Your task to perform on an android device: toggle translation in the chrome app Image 0: 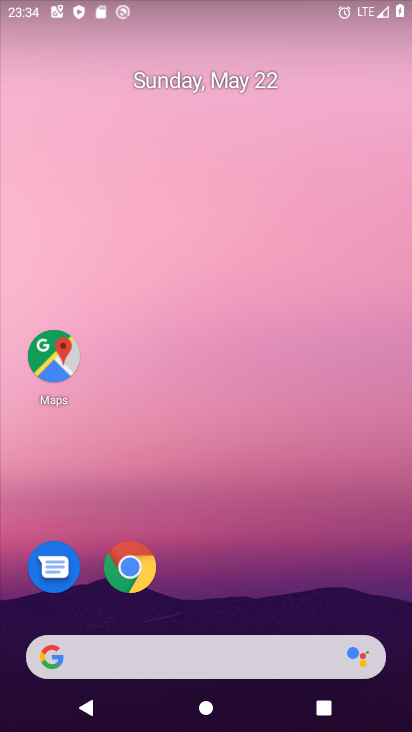
Step 0: click (258, 80)
Your task to perform on an android device: toggle translation in the chrome app Image 1: 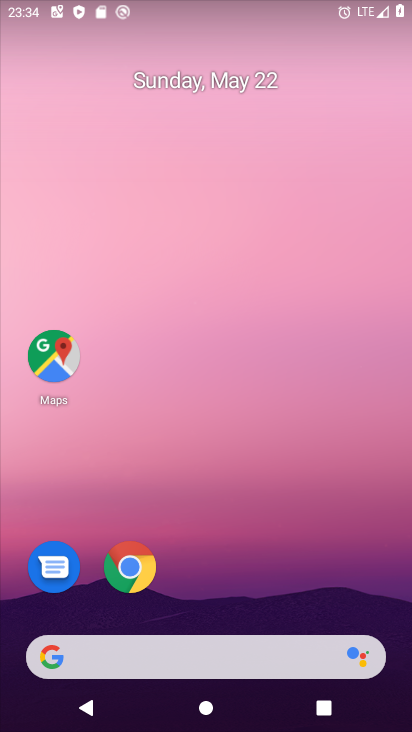
Step 1: drag from (228, 590) to (223, 23)
Your task to perform on an android device: toggle translation in the chrome app Image 2: 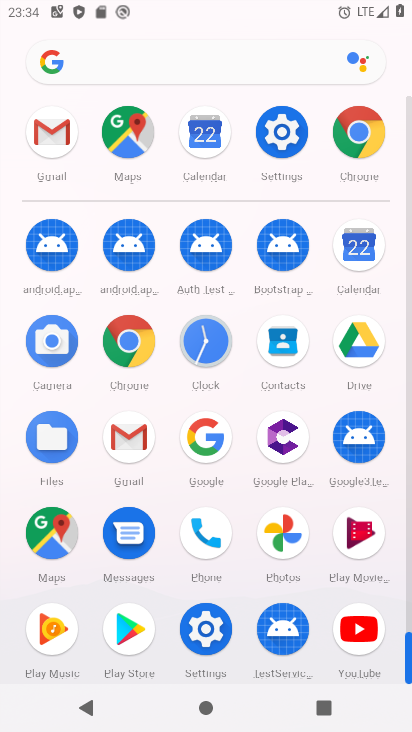
Step 2: drag from (16, 570) to (14, 285)
Your task to perform on an android device: toggle translation in the chrome app Image 3: 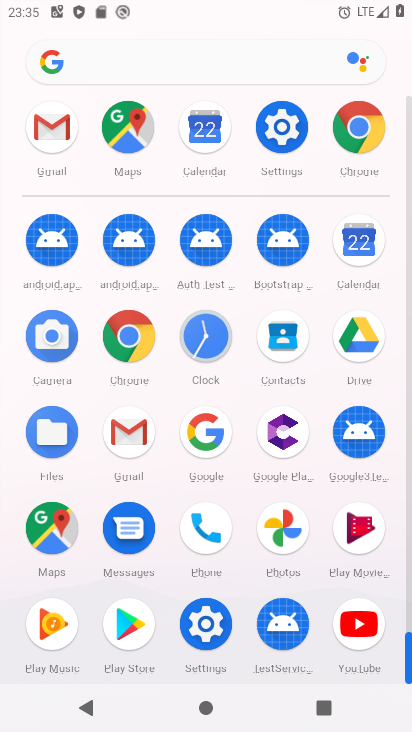
Step 3: click (124, 332)
Your task to perform on an android device: toggle translation in the chrome app Image 4: 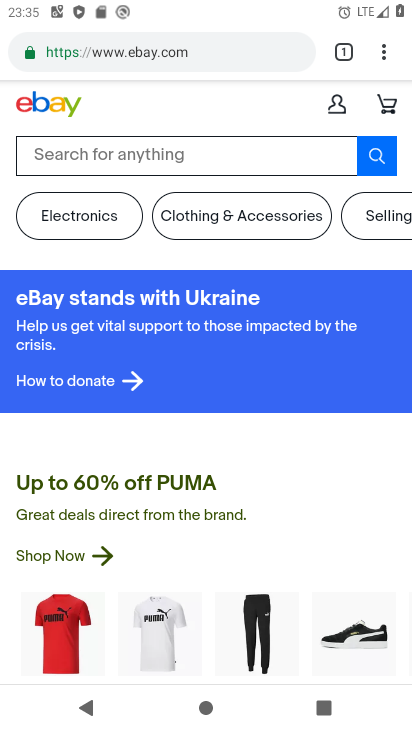
Step 4: drag from (382, 52) to (208, 622)
Your task to perform on an android device: toggle translation in the chrome app Image 5: 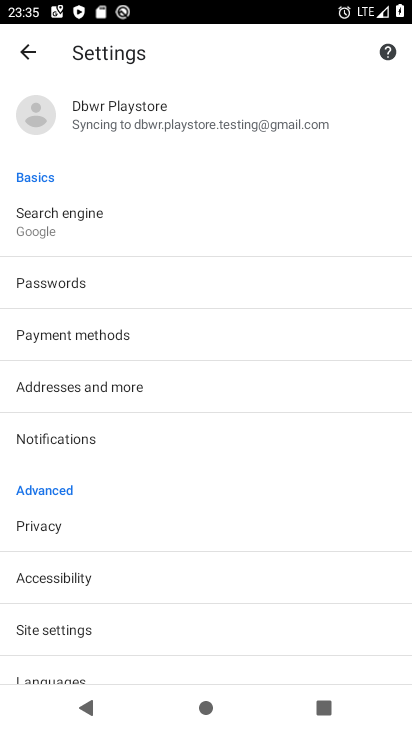
Step 5: drag from (189, 687) to (226, 225)
Your task to perform on an android device: toggle translation in the chrome app Image 6: 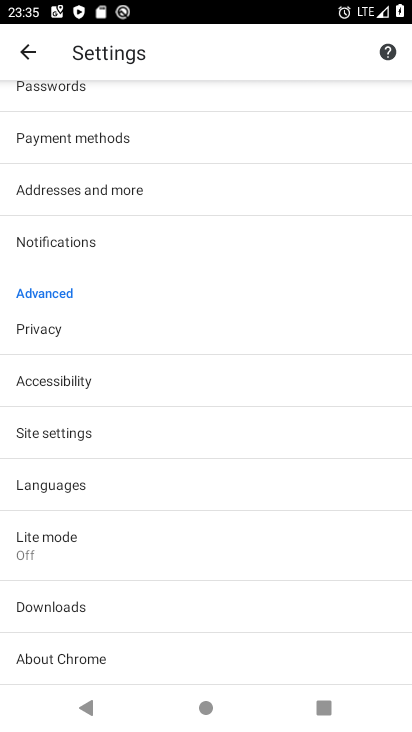
Step 6: drag from (221, 563) to (241, 182)
Your task to perform on an android device: toggle translation in the chrome app Image 7: 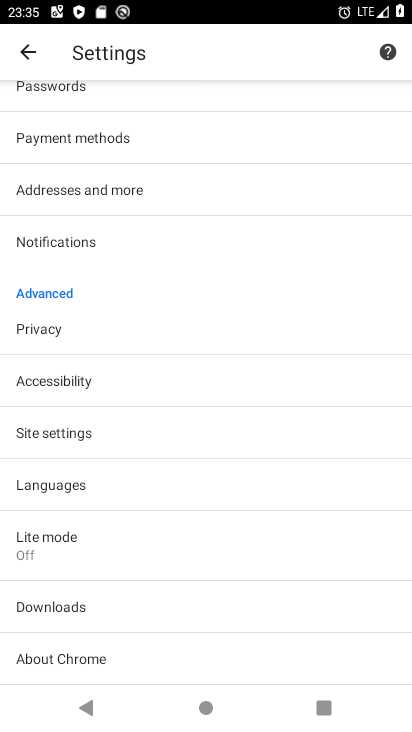
Step 7: click (106, 492)
Your task to perform on an android device: toggle translation in the chrome app Image 8: 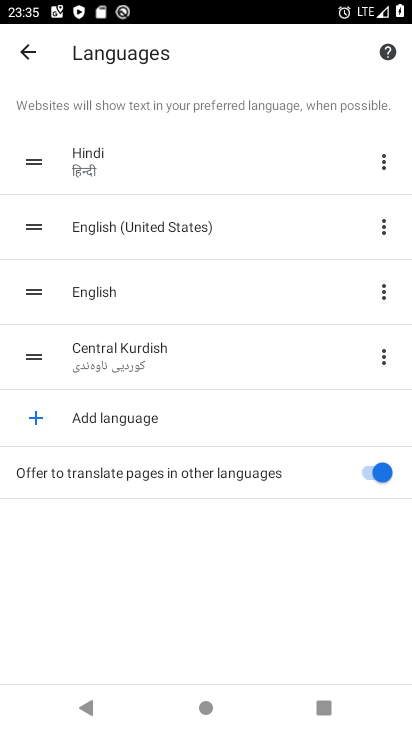
Step 8: click (382, 467)
Your task to perform on an android device: toggle translation in the chrome app Image 9: 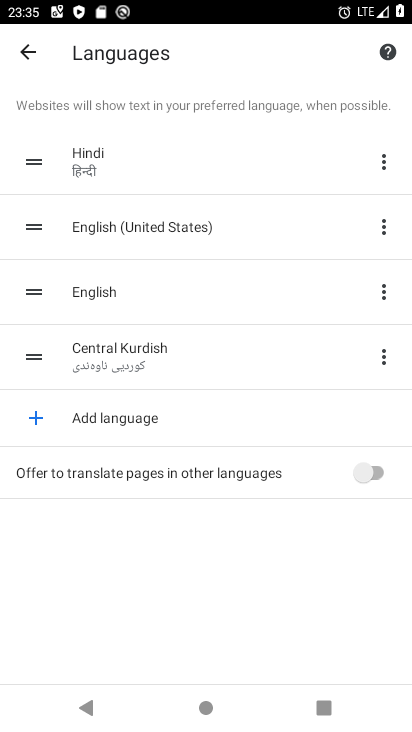
Step 9: task complete